Your task to perform on an android device: Open Google Chrome and click the shortcut for Amazon.com Image 0: 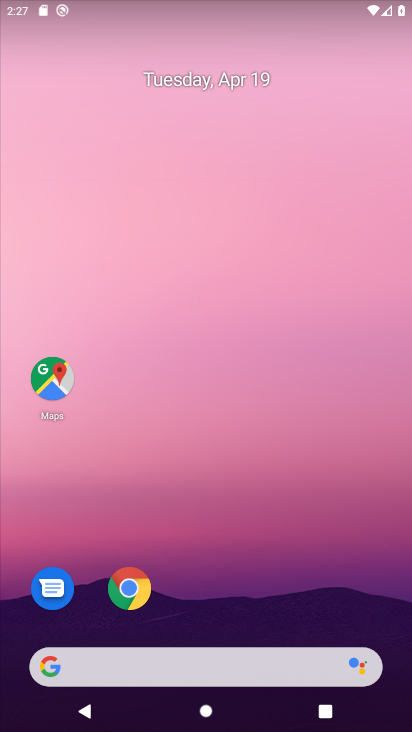
Step 0: drag from (171, 614) to (376, 156)
Your task to perform on an android device: Open Google Chrome and click the shortcut for Amazon.com Image 1: 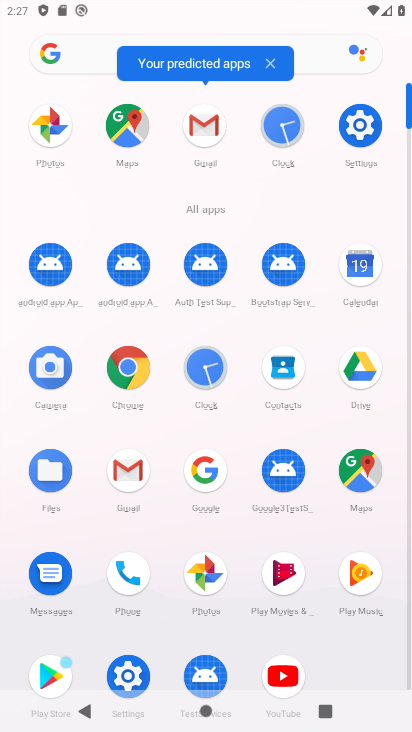
Step 1: click (130, 355)
Your task to perform on an android device: Open Google Chrome and click the shortcut for Amazon.com Image 2: 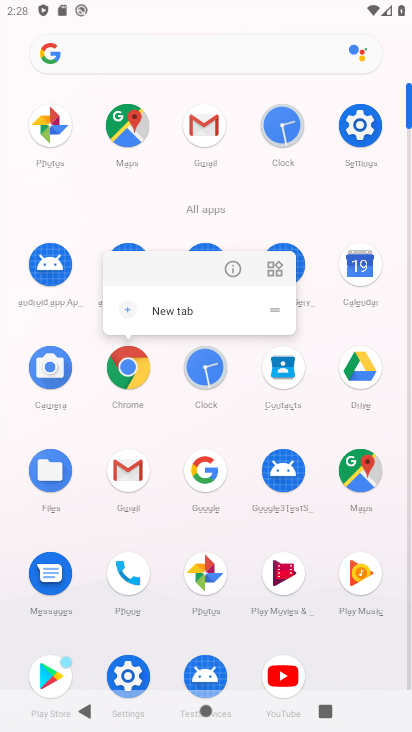
Step 2: click (251, 249)
Your task to perform on an android device: Open Google Chrome and click the shortcut for Amazon.com Image 3: 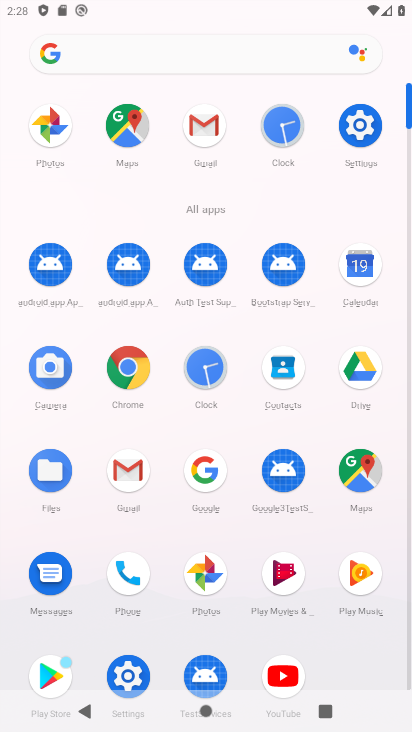
Step 3: click (130, 379)
Your task to perform on an android device: Open Google Chrome and click the shortcut for Amazon.com Image 4: 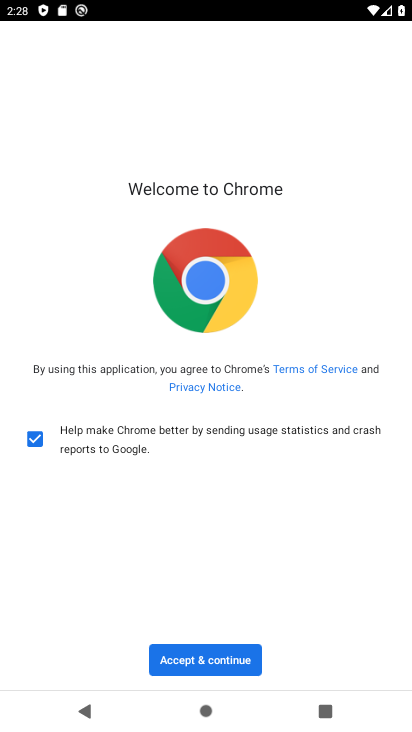
Step 4: click (193, 652)
Your task to perform on an android device: Open Google Chrome and click the shortcut for Amazon.com Image 5: 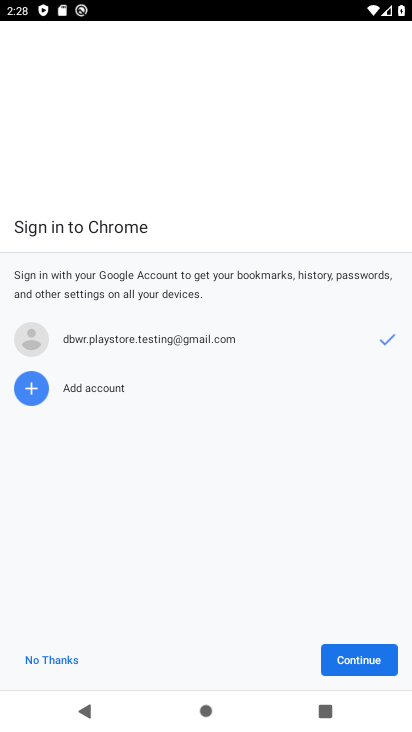
Step 5: click (354, 660)
Your task to perform on an android device: Open Google Chrome and click the shortcut for Amazon.com Image 6: 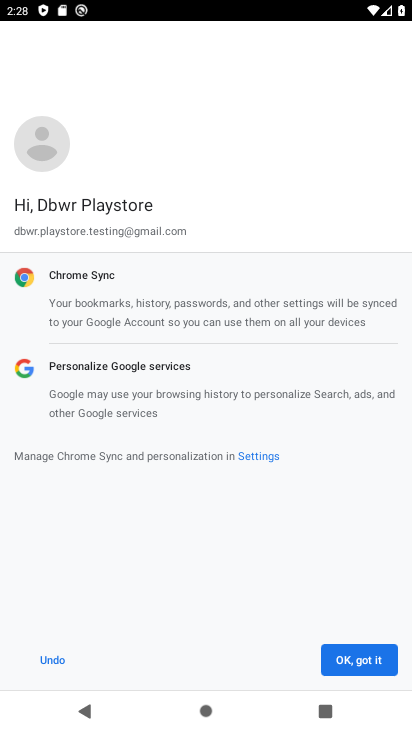
Step 6: click (360, 655)
Your task to perform on an android device: Open Google Chrome and click the shortcut for Amazon.com Image 7: 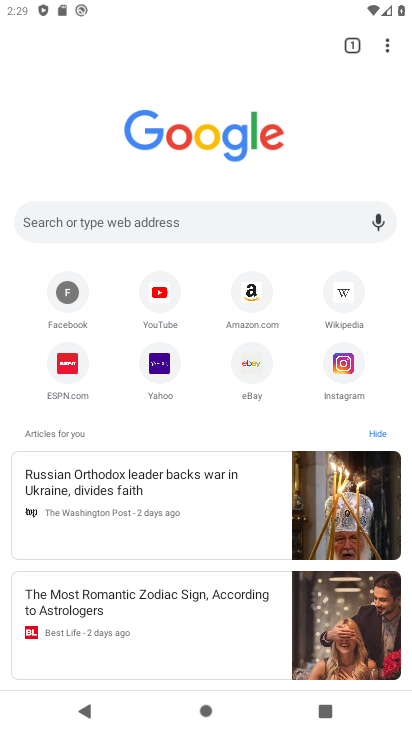
Step 7: click (261, 289)
Your task to perform on an android device: Open Google Chrome and click the shortcut for Amazon.com Image 8: 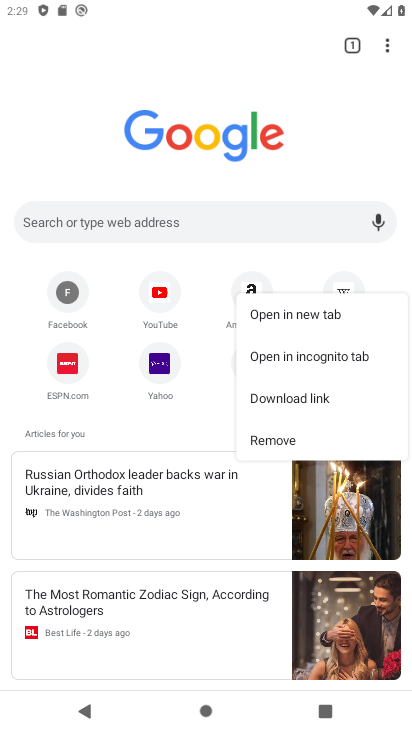
Step 8: click (259, 289)
Your task to perform on an android device: Open Google Chrome and click the shortcut for Amazon.com Image 9: 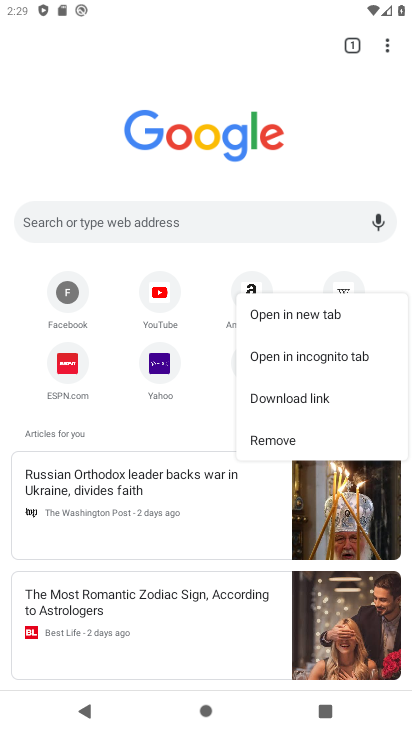
Step 9: click (299, 269)
Your task to perform on an android device: Open Google Chrome and click the shortcut for Amazon.com Image 10: 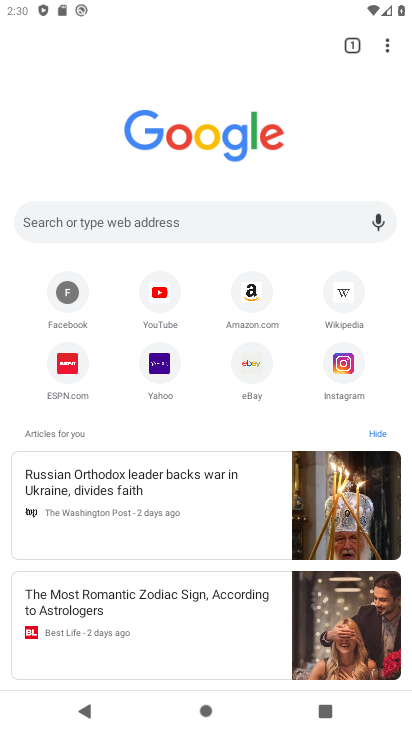
Step 10: click (248, 288)
Your task to perform on an android device: Open Google Chrome and click the shortcut for Amazon.com Image 11: 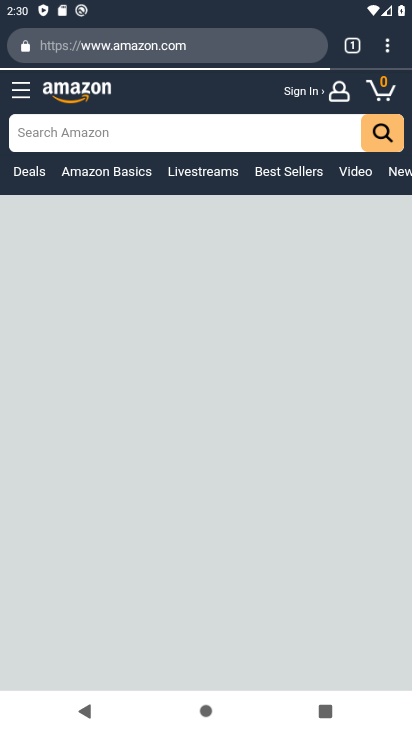
Step 11: task complete